Your task to perform on an android device: change your default location settings in chrome Image 0: 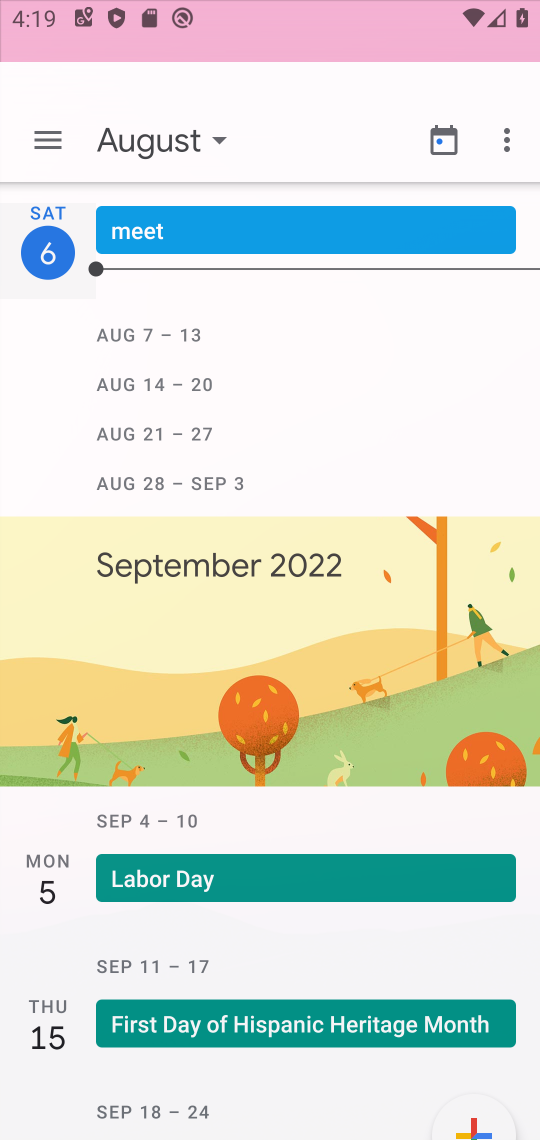
Step 0: press home button
Your task to perform on an android device: change your default location settings in chrome Image 1: 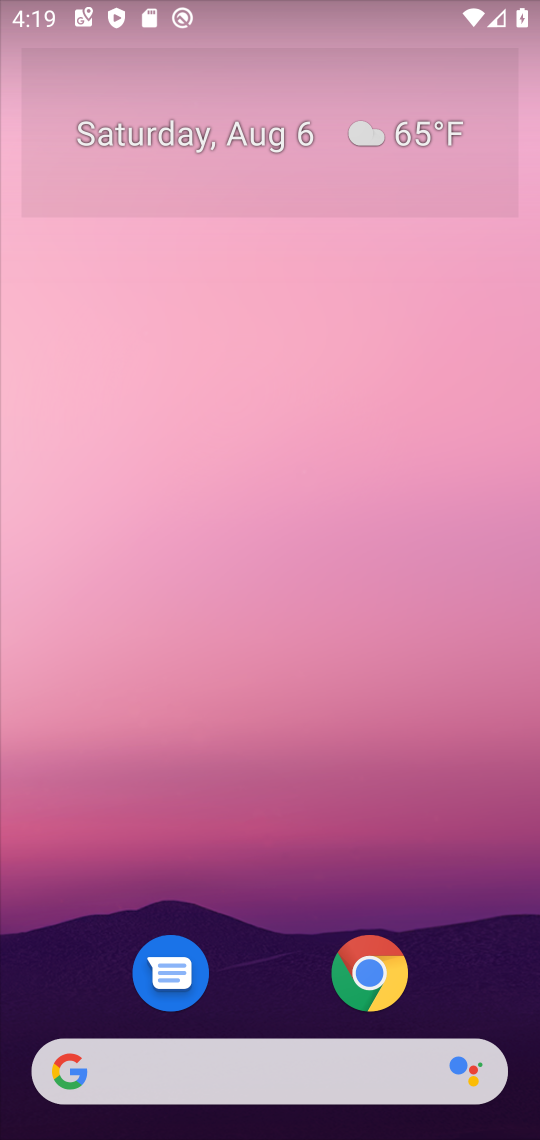
Step 1: press home button
Your task to perform on an android device: change your default location settings in chrome Image 2: 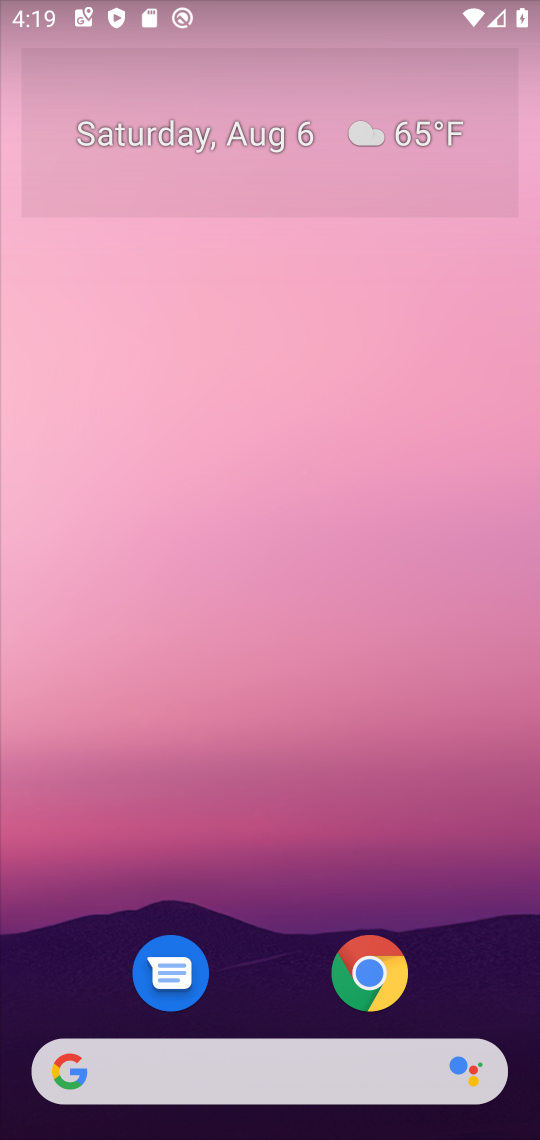
Step 2: drag from (283, 952) to (305, 236)
Your task to perform on an android device: change your default location settings in chrome Image 3: 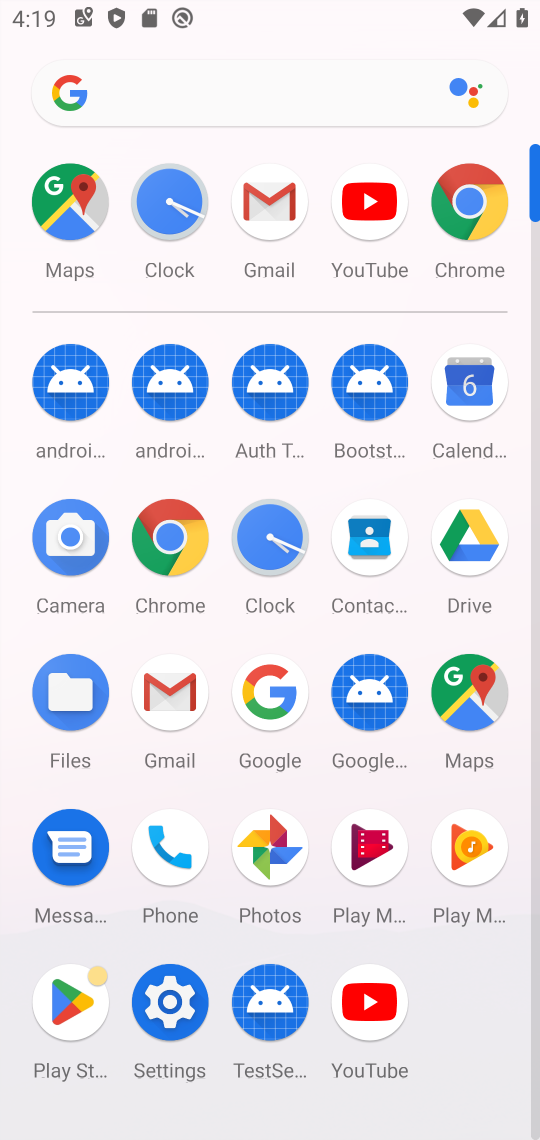
Step 3: click (169, 533)
Your task to perform on an android device: change your default location settings in chrome Image 4: 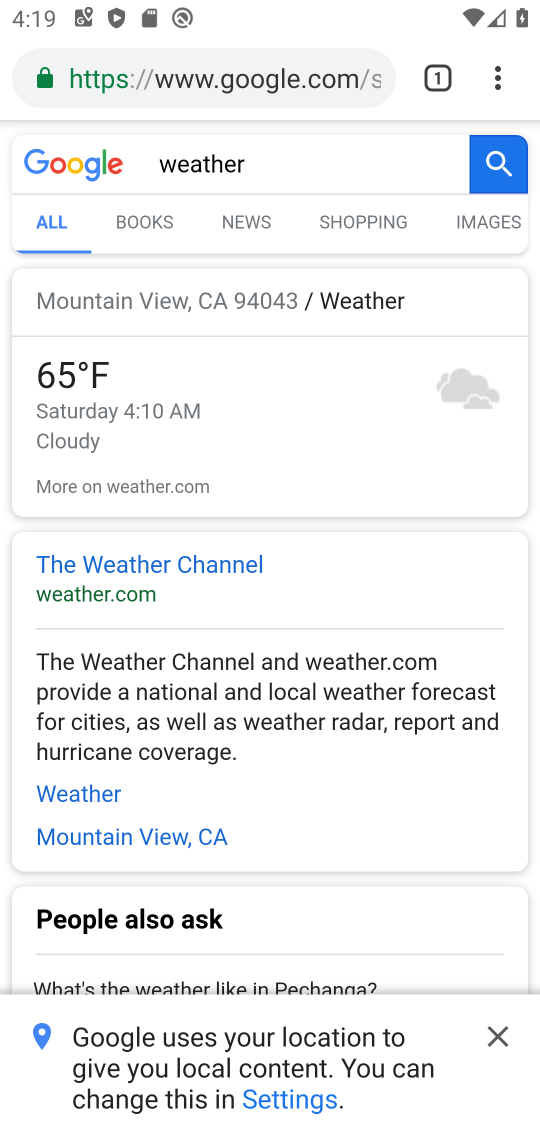
Step 4: drag from (490, 73) to (214, 882)
Your task to perform on an android device: change your default location settings in chrome Image 5: 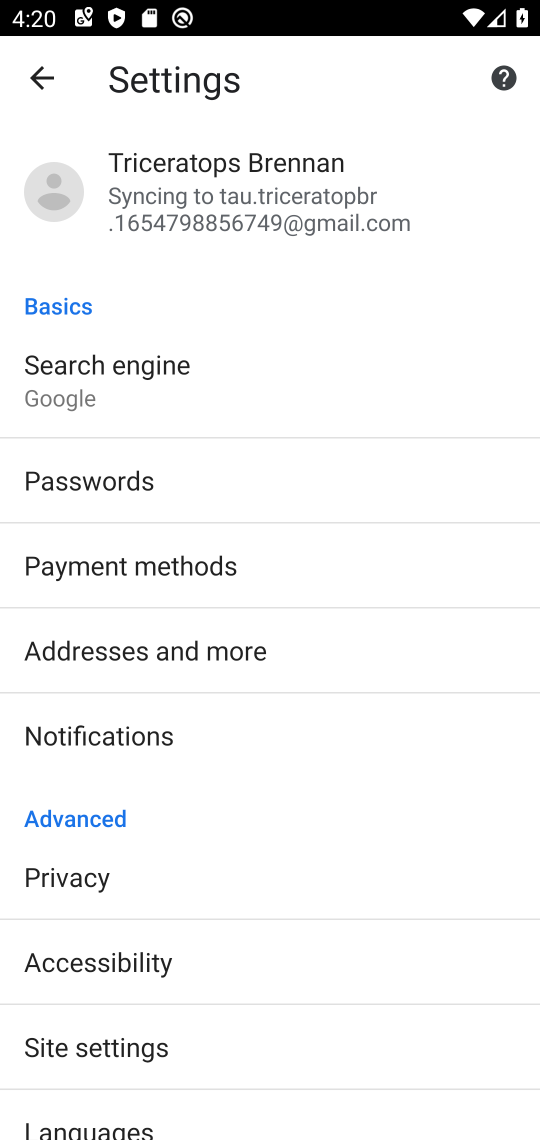
Step 5: click (128, 1045)
Your task to perform on an android device: change your default location settings in chrome Image 6: 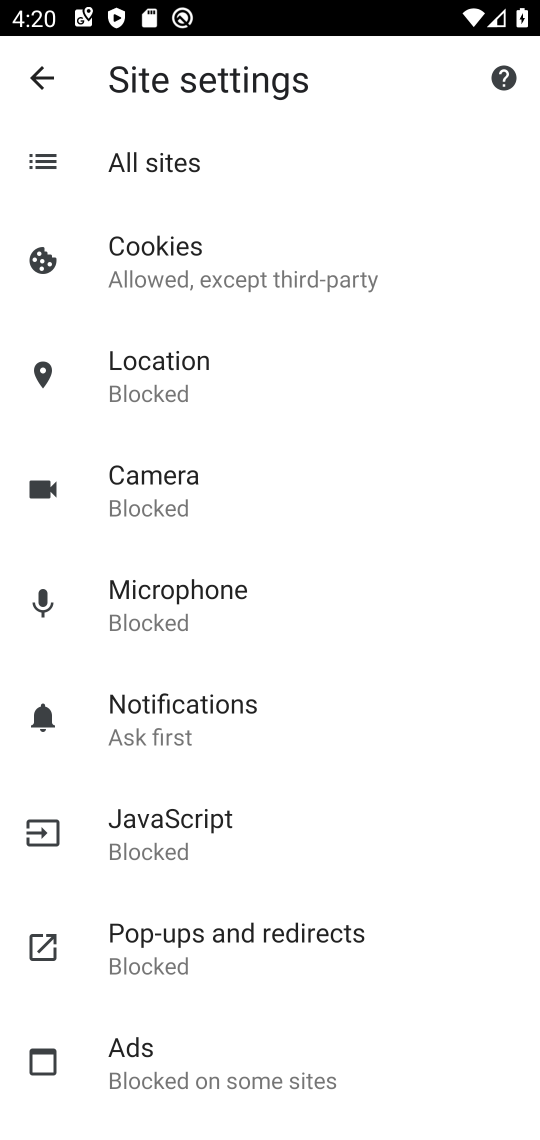
Step 6: drag from (194, 973) to (248, 278)
Your task to perform on an android device: change your default location settings in chrome Image 7: 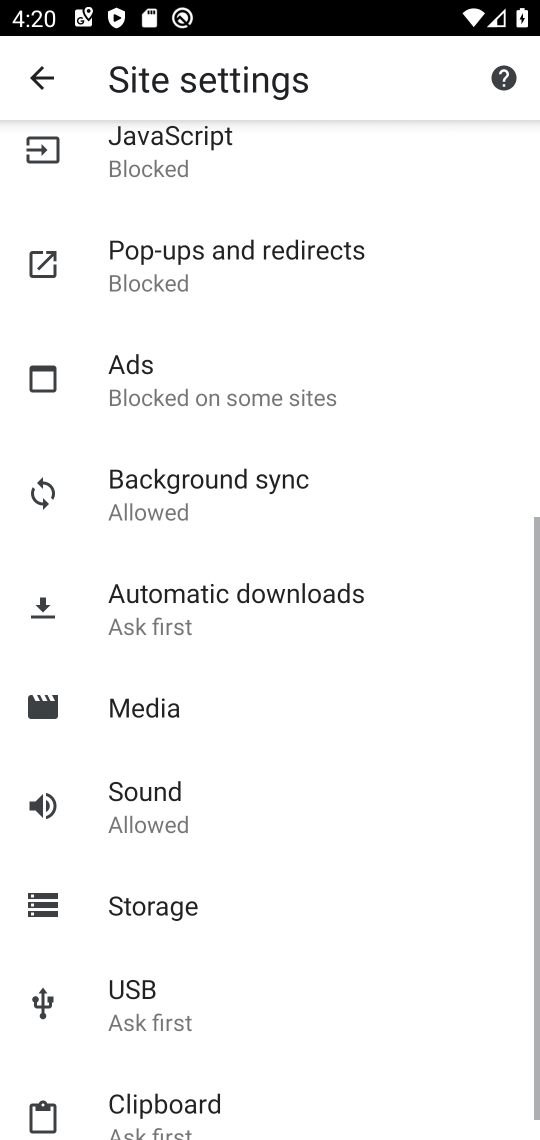
Step 7: drag from (245, 290) to (288, 1130)
Your task to perform on an android device: change your default location settings in chrome Image 8: 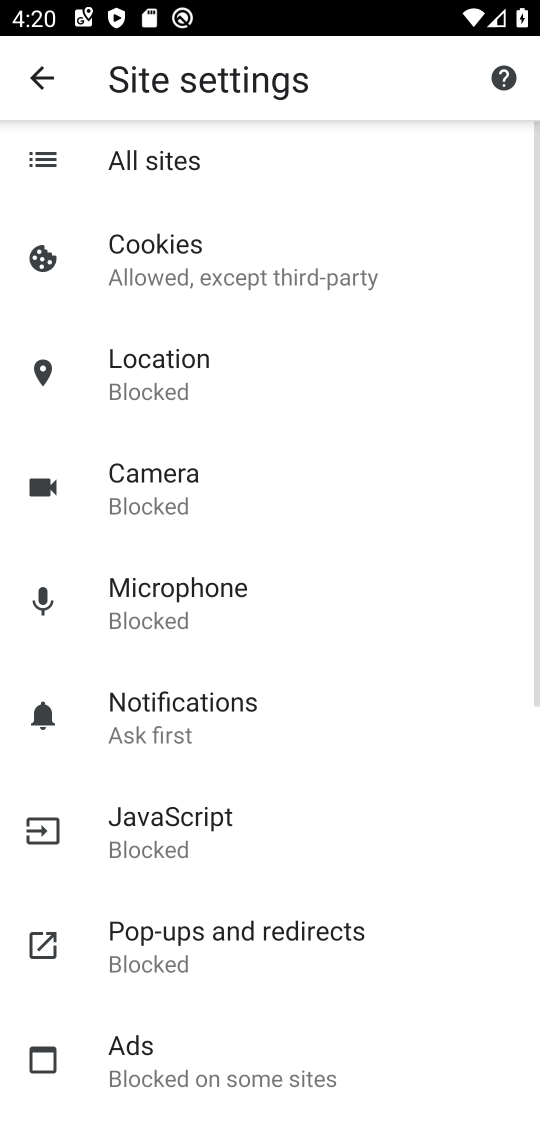
Step 8: click (181, 390)
Your task to perform on an android device: change your default location settings in chrome Image 9: 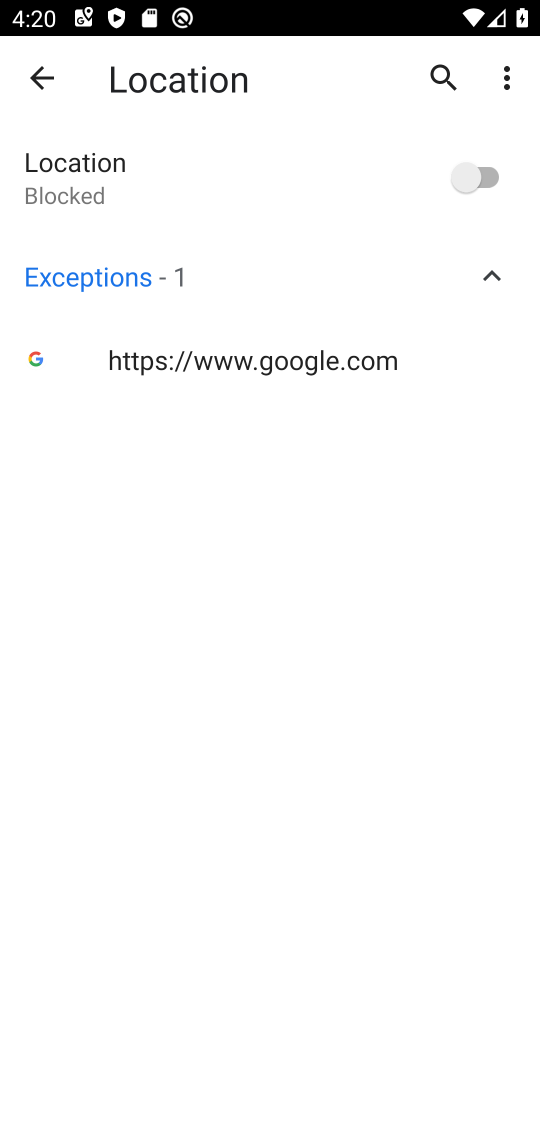
Step 9: click (467, 161)
Your task to perform on an android device: change your default location settings in chrome Image 10: 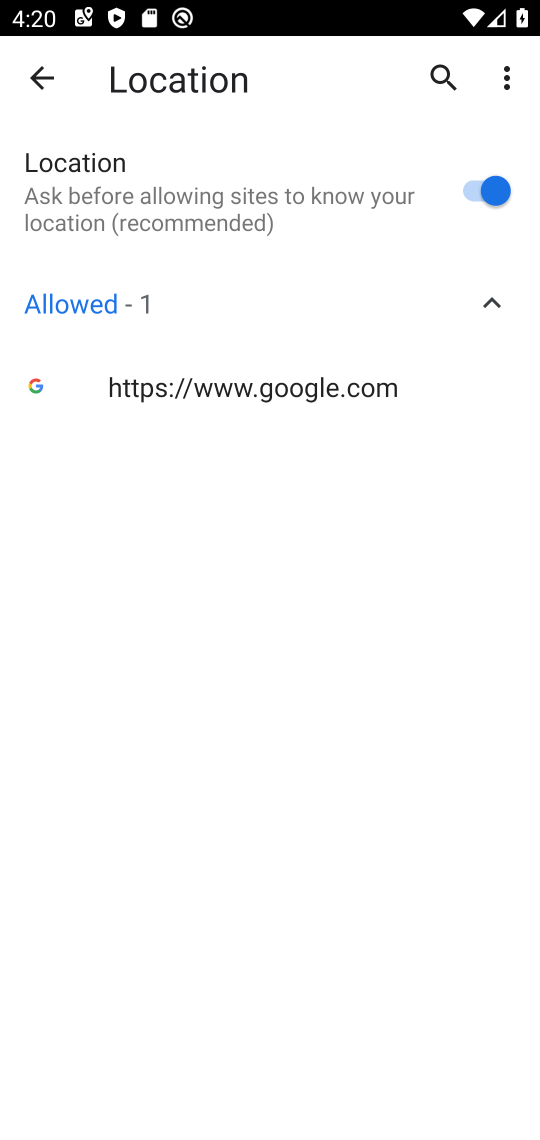
Step 10: task complete